Your task to perform on an android device: set an alarm Image 0: 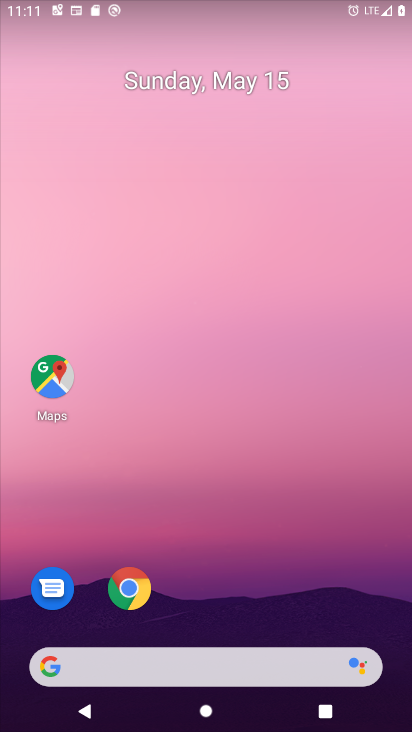
Step 0: drag from (261, 604) to (245, 23)
Your task to perform on an android device: set an alarm Image 1: 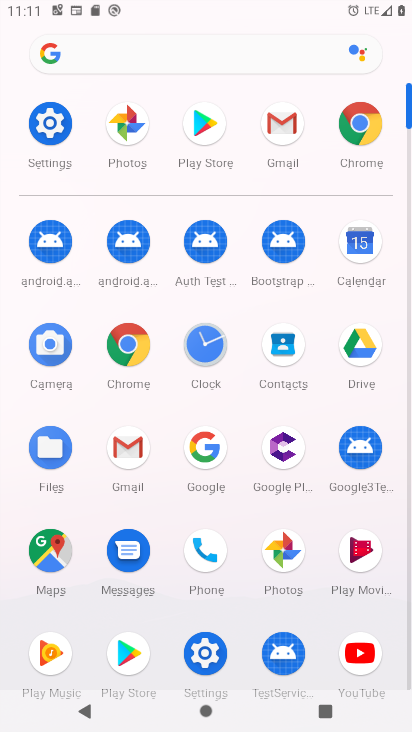
Step 1: click (203, 338)
Your task to perform on an android device: set an alarm Image 2: 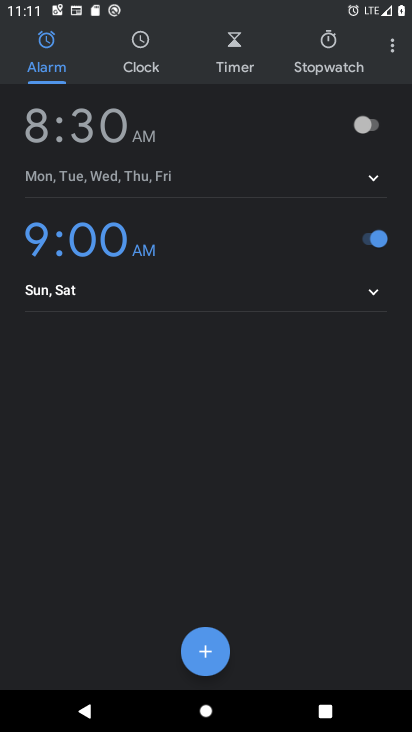
Step 2: task complete